Your task to perform on an android device: see creations saved in the google photos Image 0: 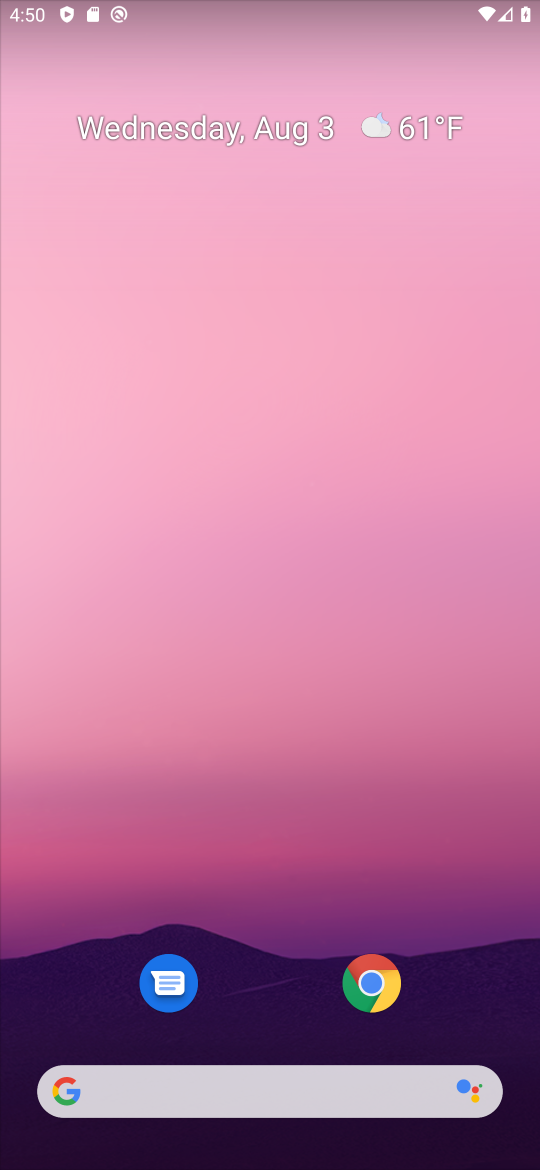
Step 0: press home button
Your task to perform on an android device: see creations saved in the google photos Image 1: 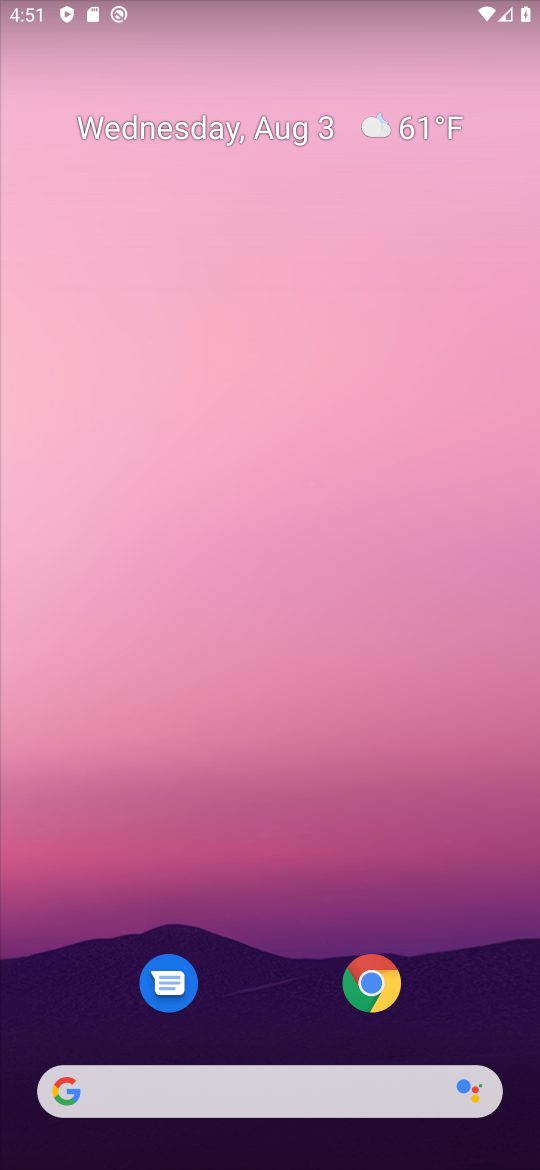
Step 1: drag from (274, 1032) to (369, 184)
Your task to perform on an android device: see creations saved in the google photos Image 2: 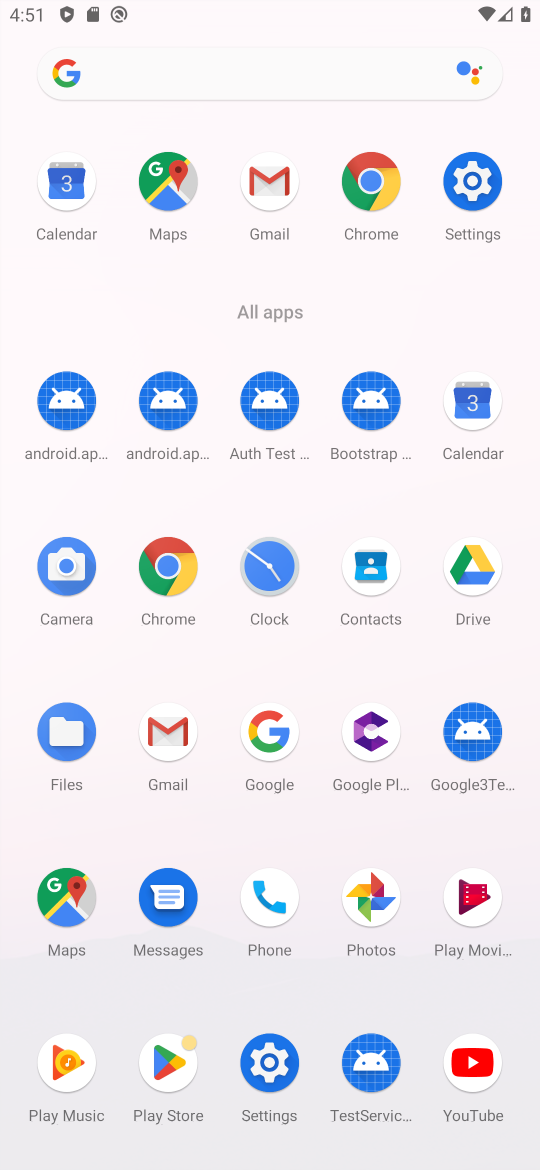
Step 2: click (353, 903)
Your task to perform on an android device: see creations saved in the google photos Image 3: 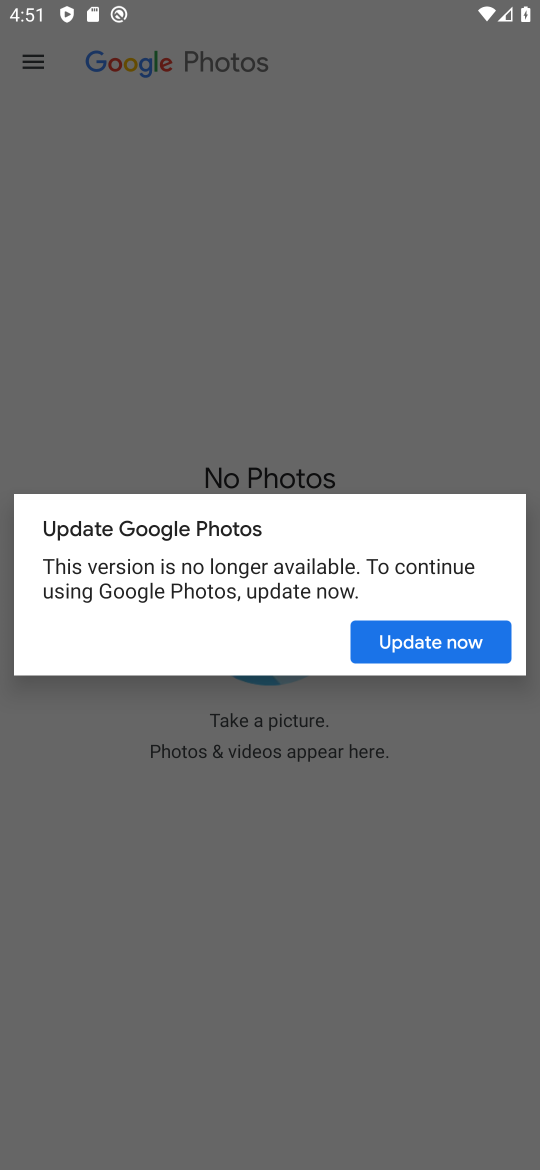
Step 3: click (406, 640)
Your task to perform on an android device: see creations saved in the google photos Image 4: 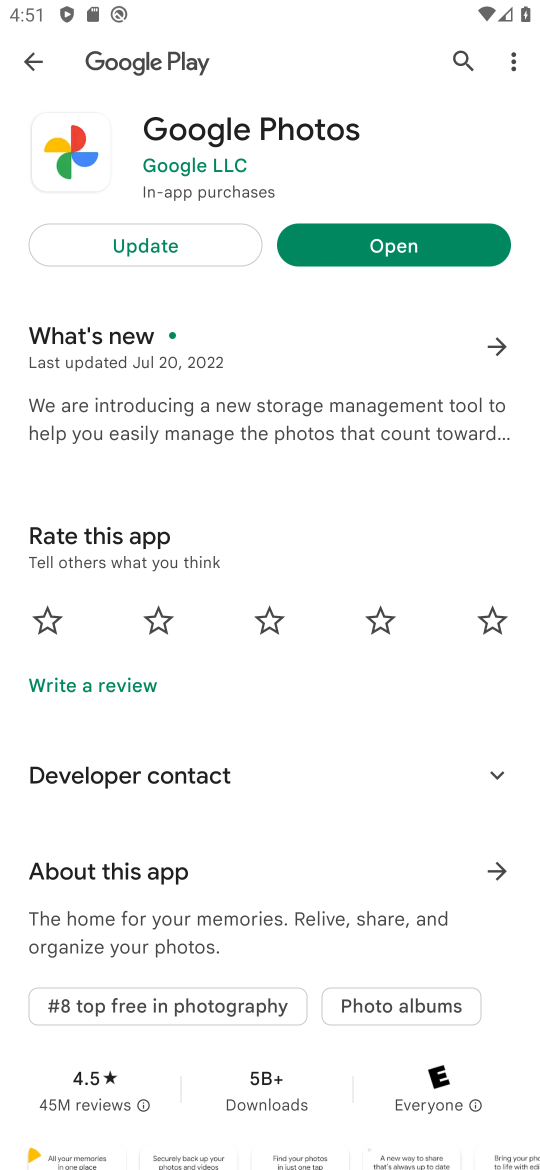
Step 4: click (194, 238)
Your task to perform on an android device: see creations saved in the google photos Image 5: 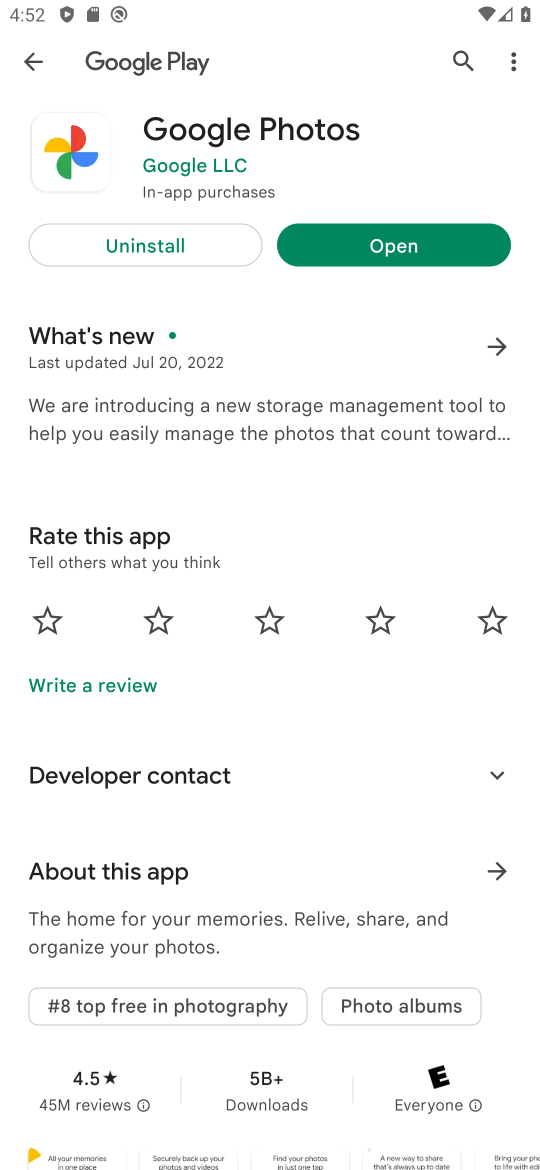
Step 5: click (445, 243)
Your task to perform on an android device: see creations saved in the google photos Image 6: 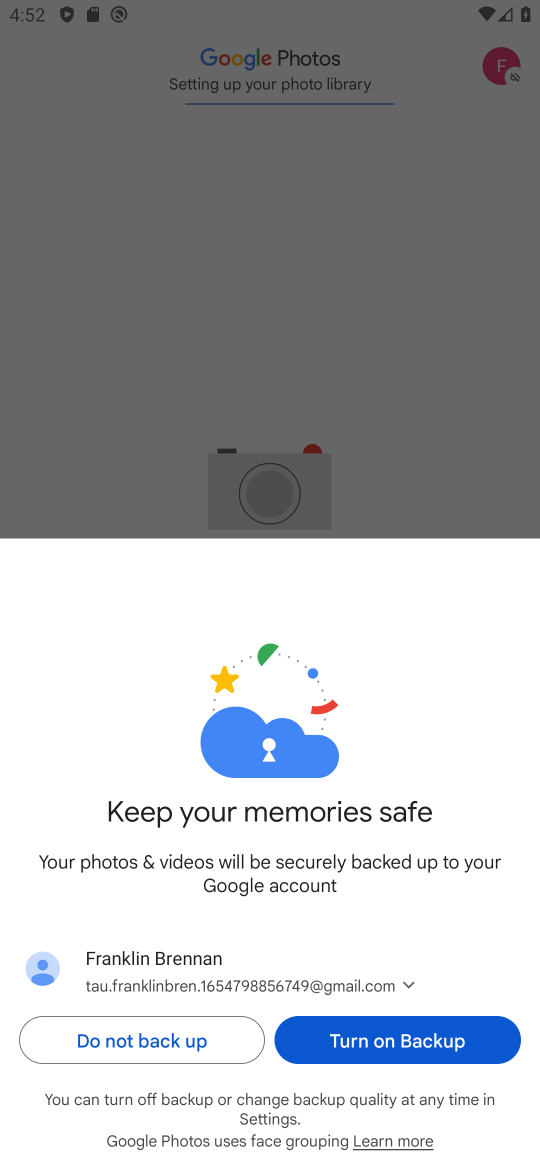
Step 6: click (142, 1050)
Your task to perform on an android device: see creations saved in the google photos Image 7: 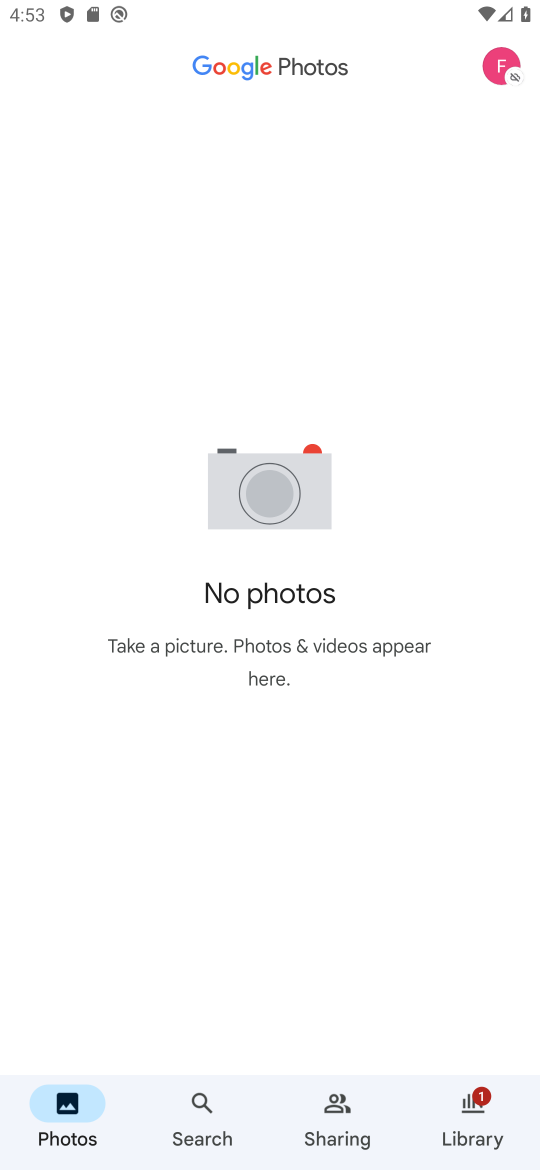
Step 7: click (201, 1104)
Your task to perform on an android device: see creations saved in the google photos Image 8: 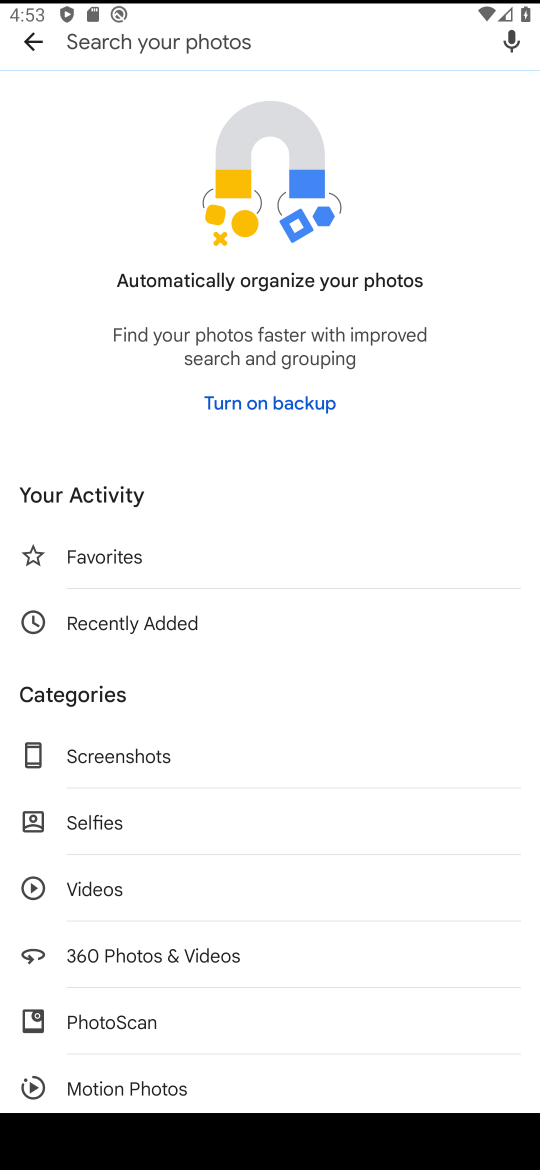
Step 8: drag from (360, 999) to (485, 246)
Your task to perform on an android device: see creations saved in the google photos Image 9: 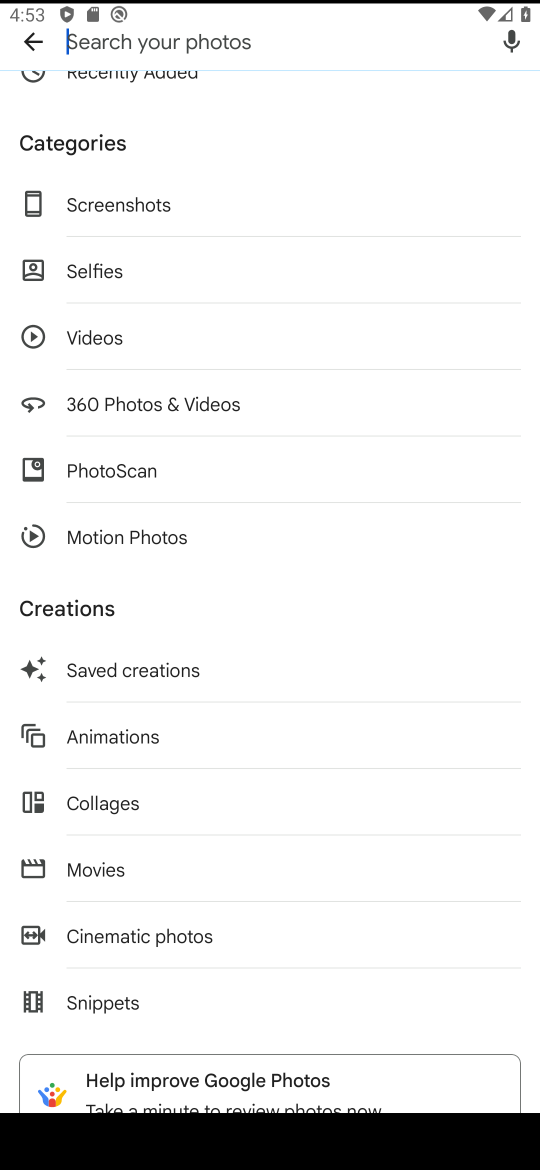
Step 9: click (111, 675)
Your task to perform on an android device: see creations saved in the google photos Image 10: 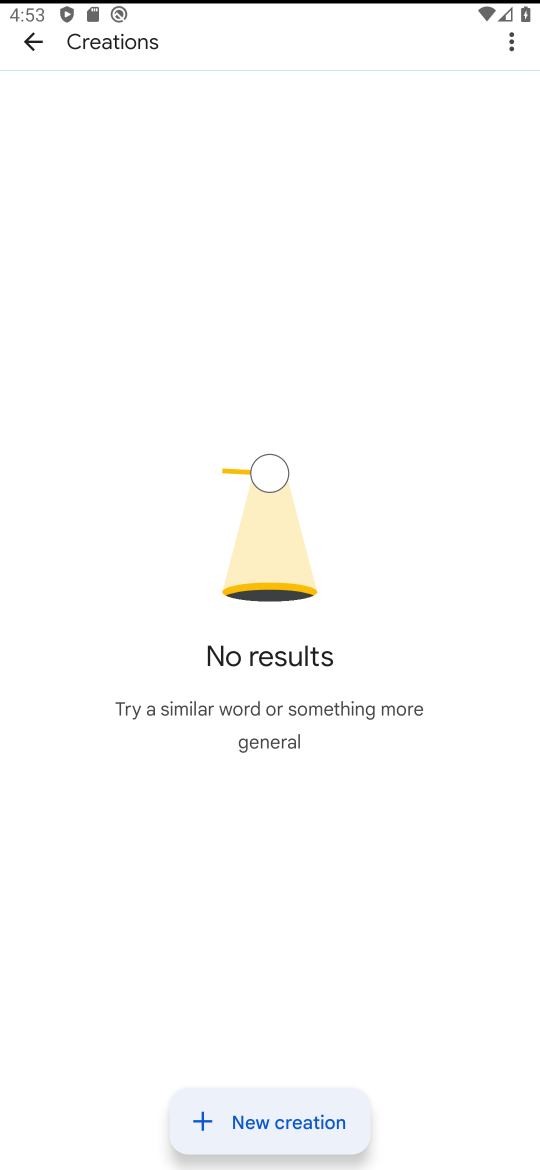
Step 10: task complete